Your task to perform on an android device: Open Google Chrome and click the shortcut for Amazon.com Image 0: 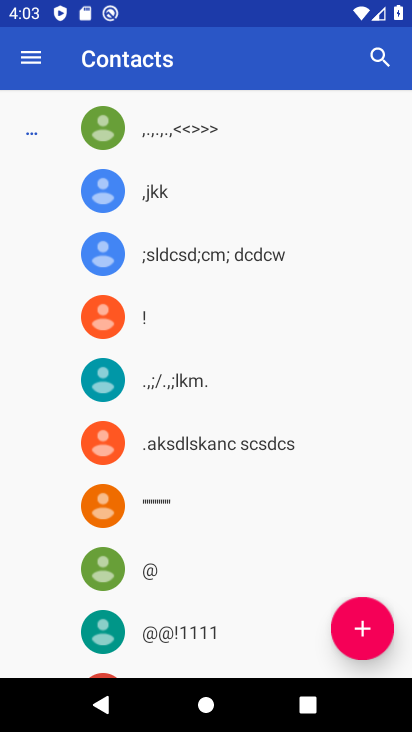
Step 0: press home button
Your task to perform on an android device: Open Google Chrome and click the shortcut for Amazon.com Image 1: 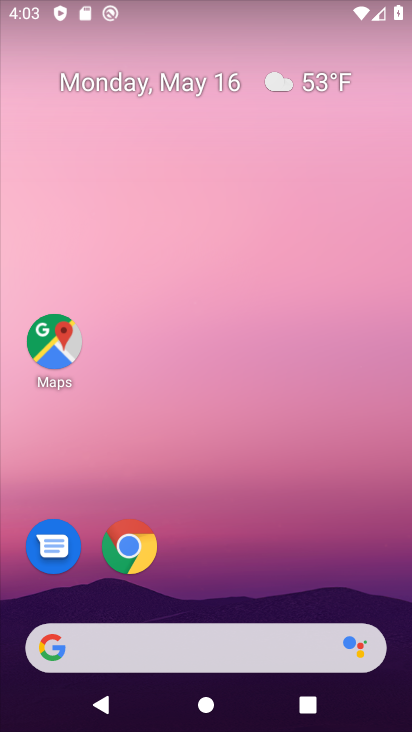
Step 1: click (133, 564)
Your task to perform on an android device: Open Google Chrome and click the shortcut for Amazon.com Image 2: 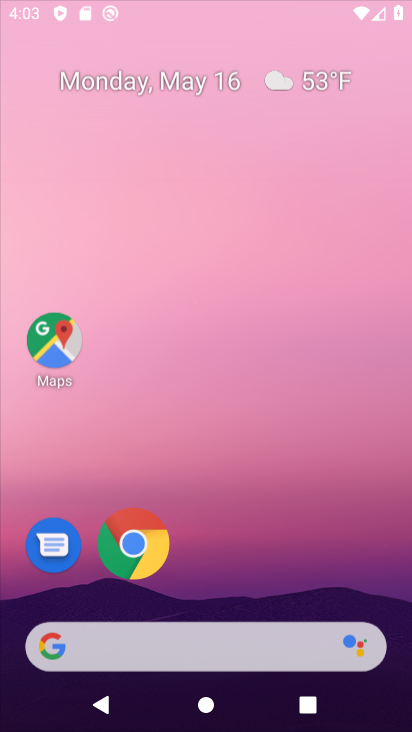
Step 2: click (134, 554)
Your task to perform on an android device: Open Google Chrome and click the shortcut for Amazon.com Image 3: 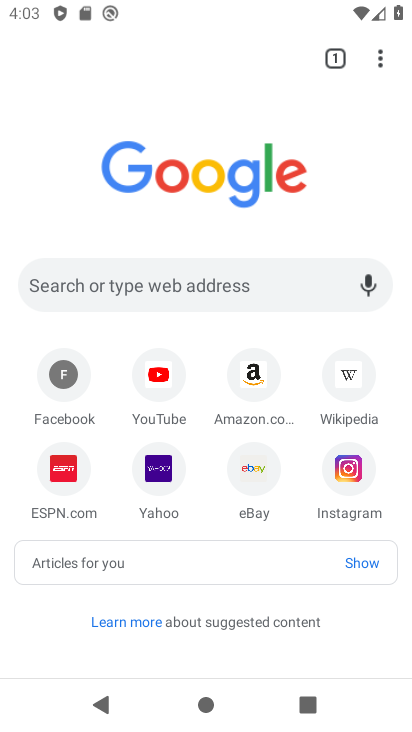
Step 3: click (251, 392)
Your task to perform on an android device: Open Google Chrome and click the shortcut for Amazon.com Image 4: 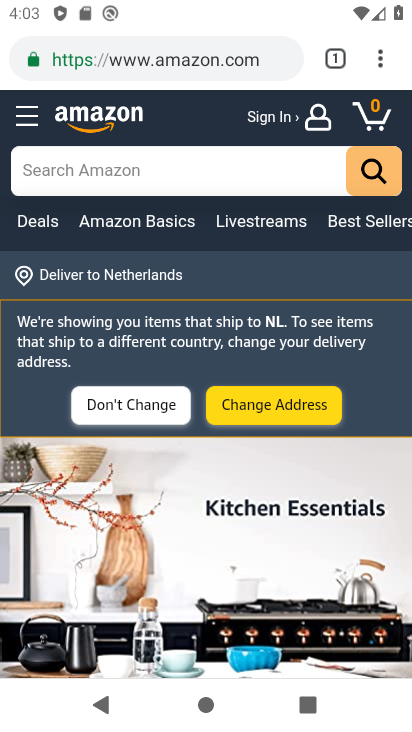
Step 4: task complete